Your task to perform on an android device: Open Google Maps Image 0: 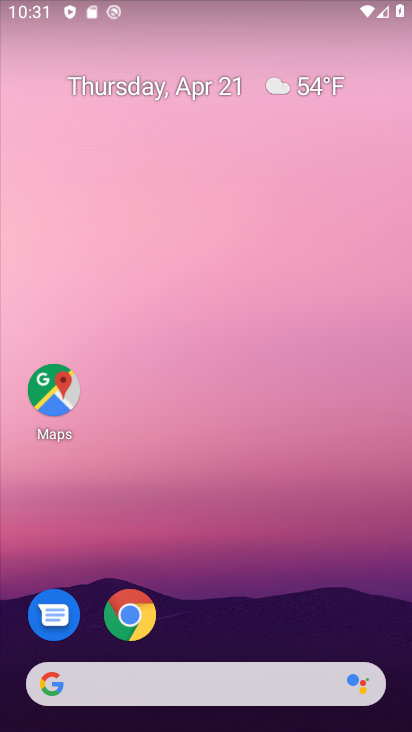
Step 0: drag from (232, 612) to (343, 48)
Your task to perform on an android device: Open Google Maps Image 1: 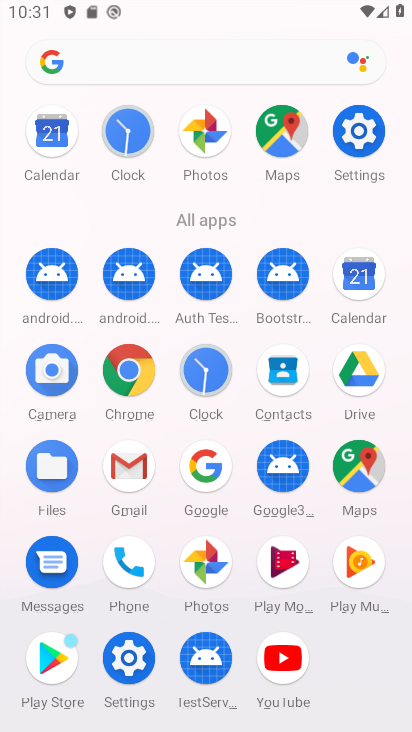
Step 1: click (274, 138)
Your task to perform on an android device: Open Google Maps Image 2: 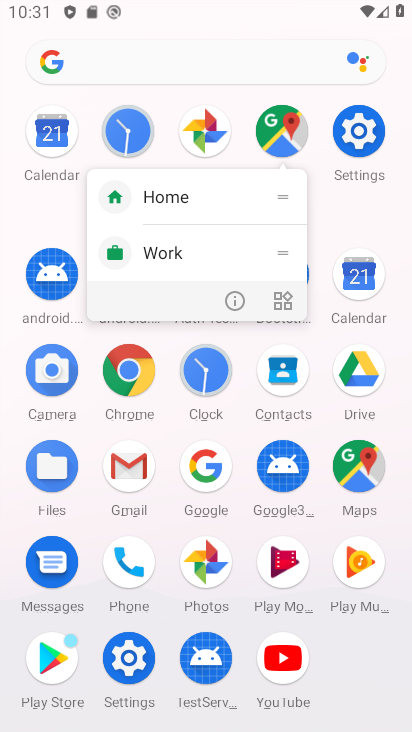
Step 2: click (275, 151)
Your task to perform on an android device: Open Google Maps Image 3: 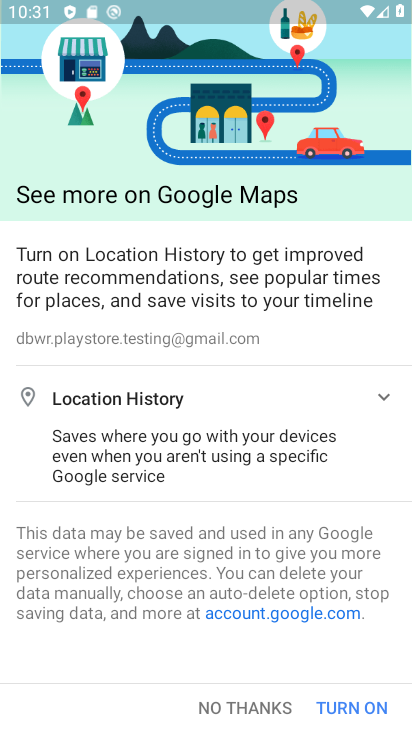
Step 3: click (237, 706)
Your task to perform on an android device: Open Google Maps Image 4: 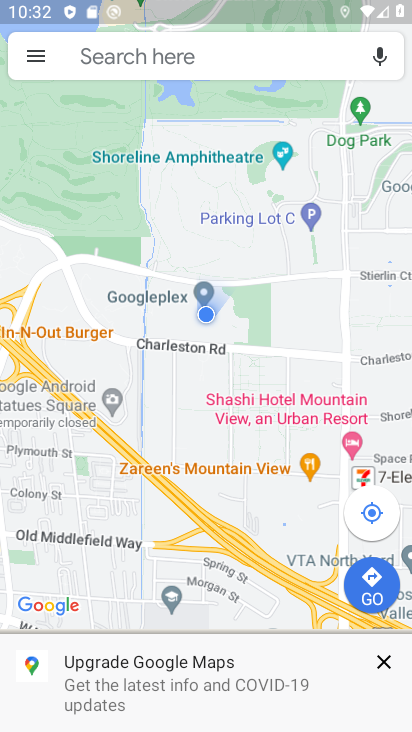
Step 4: task complete